Your task to perform on an android device: open sync settings in chrome Image 0: 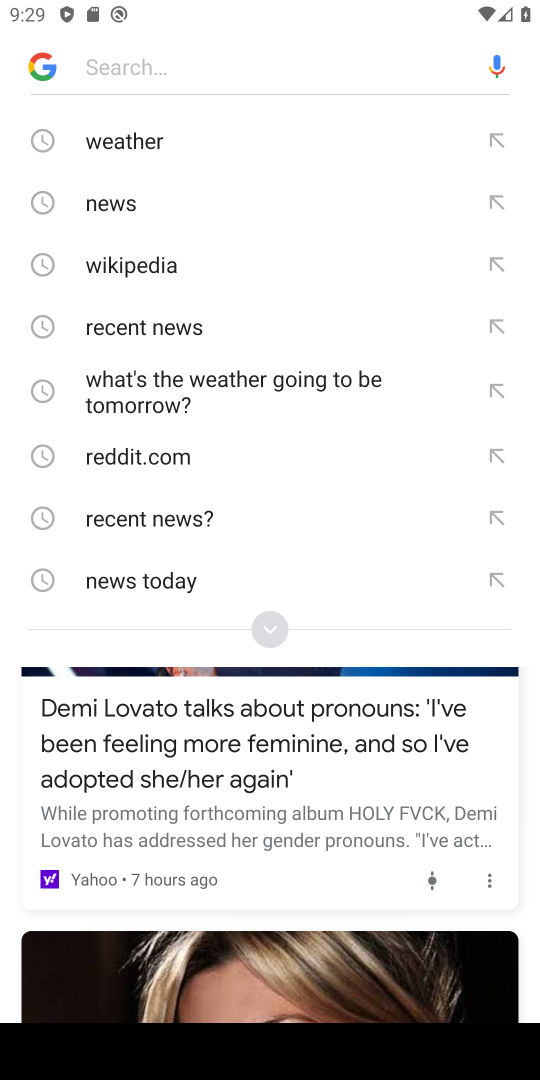
Step 0: press home button
Your task to perform on an android device: open sync settings in chrome Image 1: 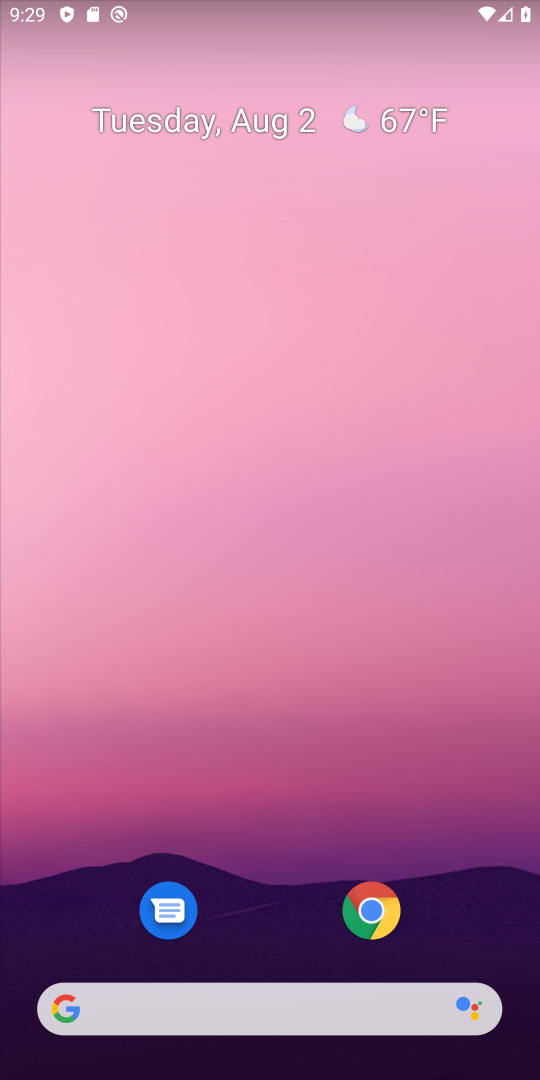
Step 1: click (379, 902)
Your task to perform on an android device: open sync settings in chrome Image 2: 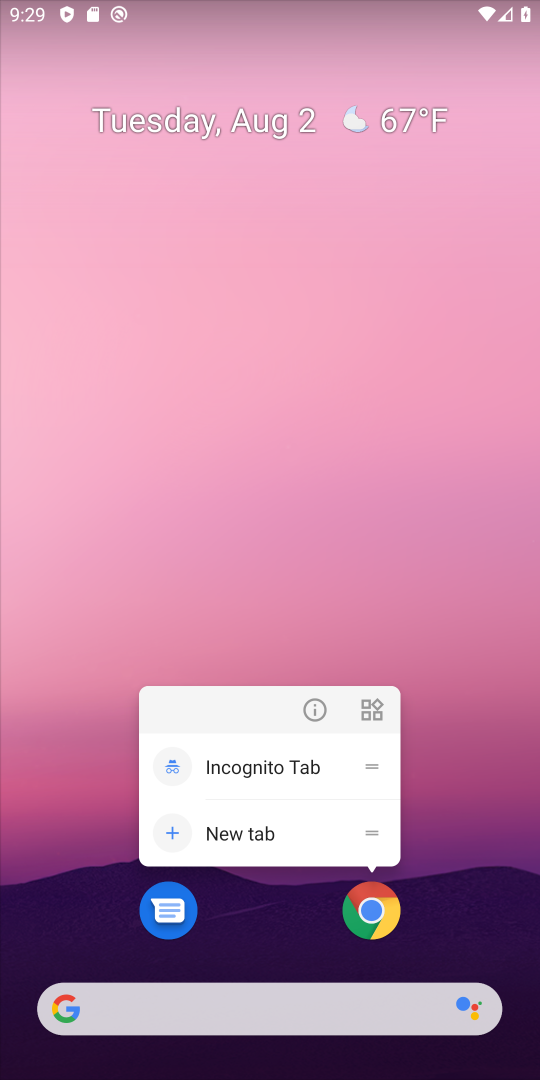
Step 2: click (379, 902)
Your task to perform on an android device: open sync settings in chrome Image 3: 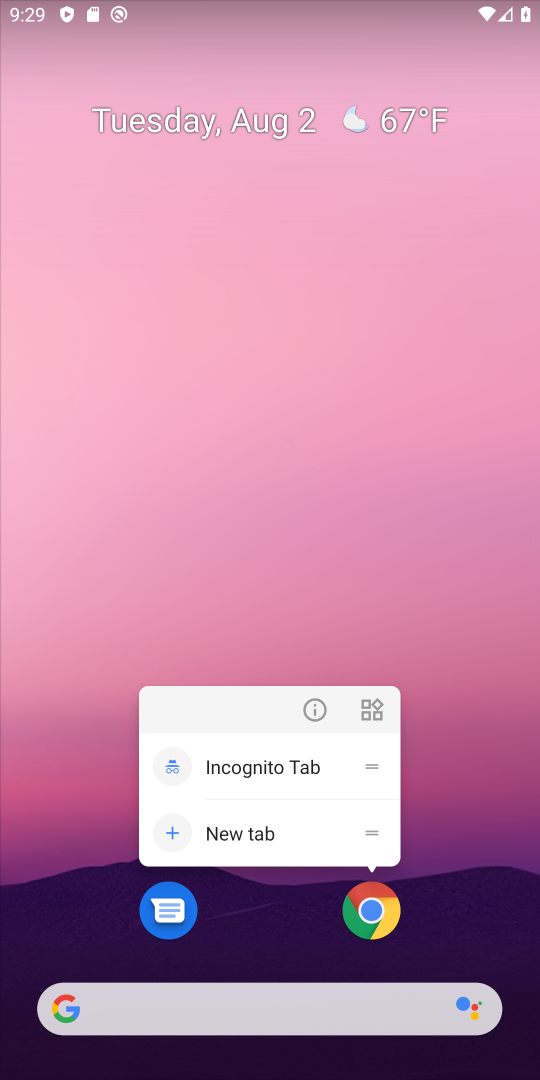
Step 3: drag from (296, 941) to (300, 463)
Your task to perform on an android device: open sync settings in chrome Image 4: 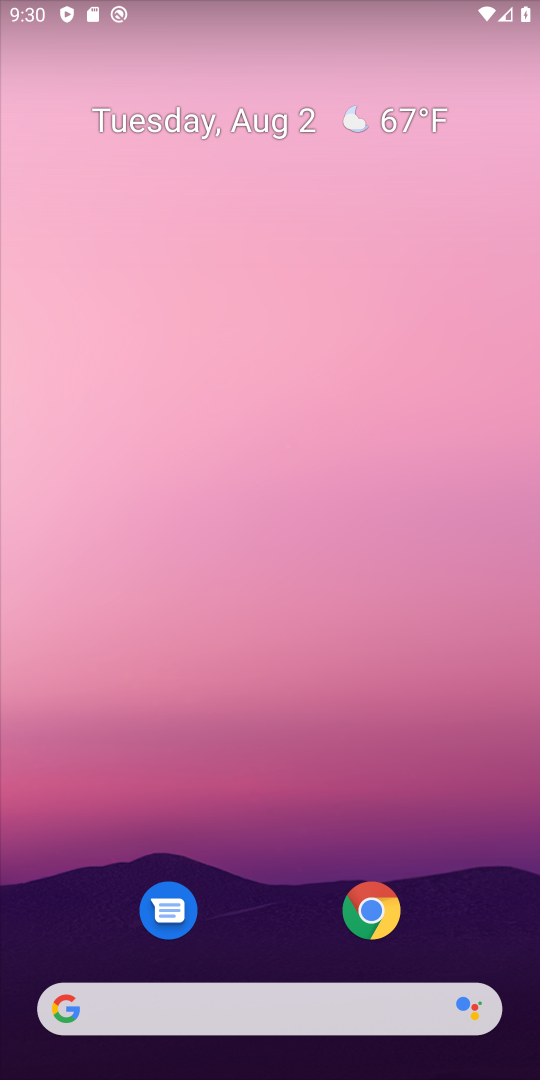
Step 4: drag from (237, 1052) to (307, 471)
Your task to perform on an android device: open sync settings in chrome Image 5: 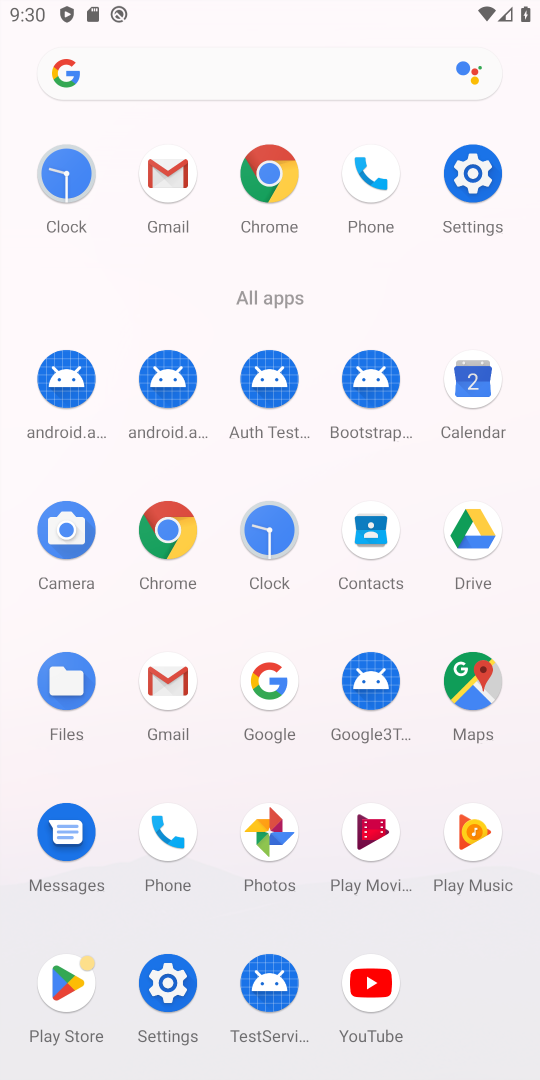
Step 5: click (261, 180)
Your task to perform on an android device: open sync settings in chrome Image 6: 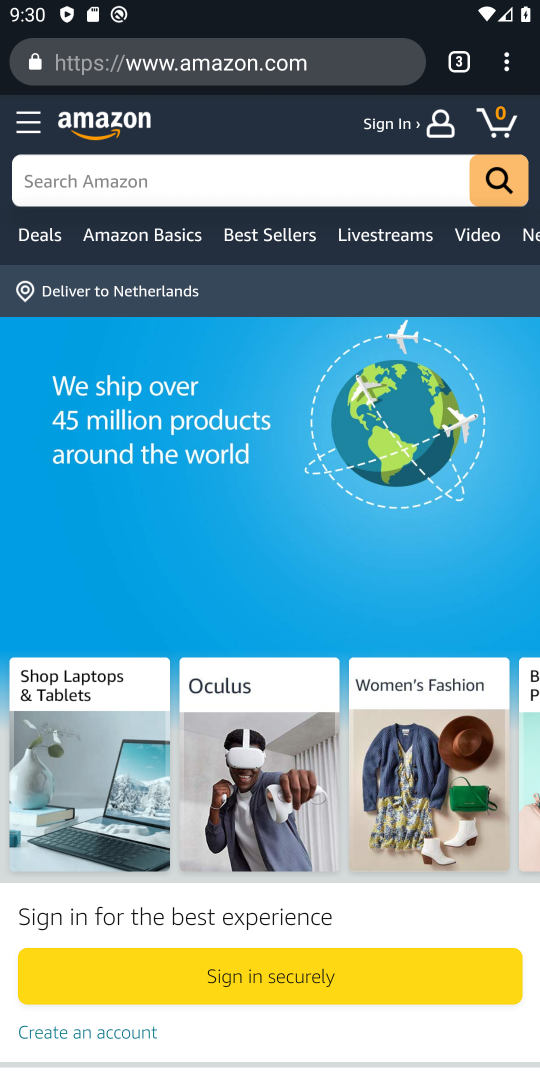
Step 6: click (517, 70)
Your task to perform on an android device: open sync settings in chrome Image 7: 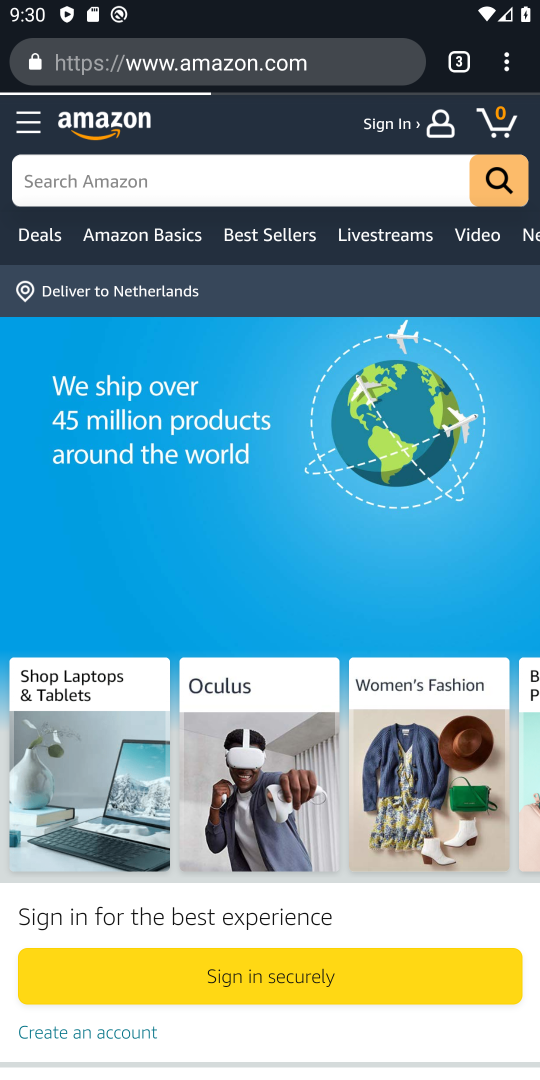
Step 7: click (517, 70)
Your task to perform on an android device: open sync settings in chrome Image 8: 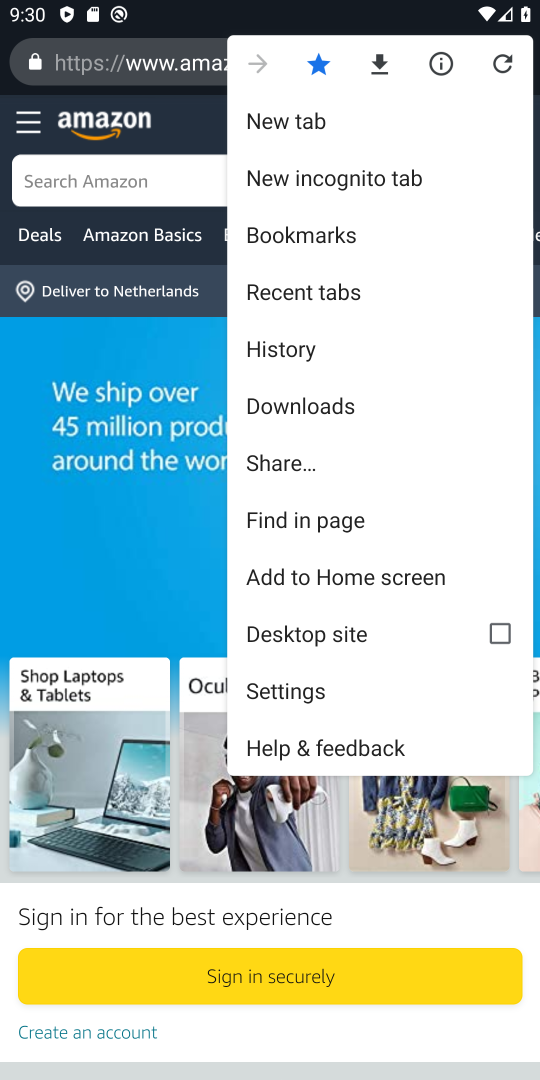
Step 8: click (268, 679)
Your task to perform on an android device: open sync settings in chrome Image 9: 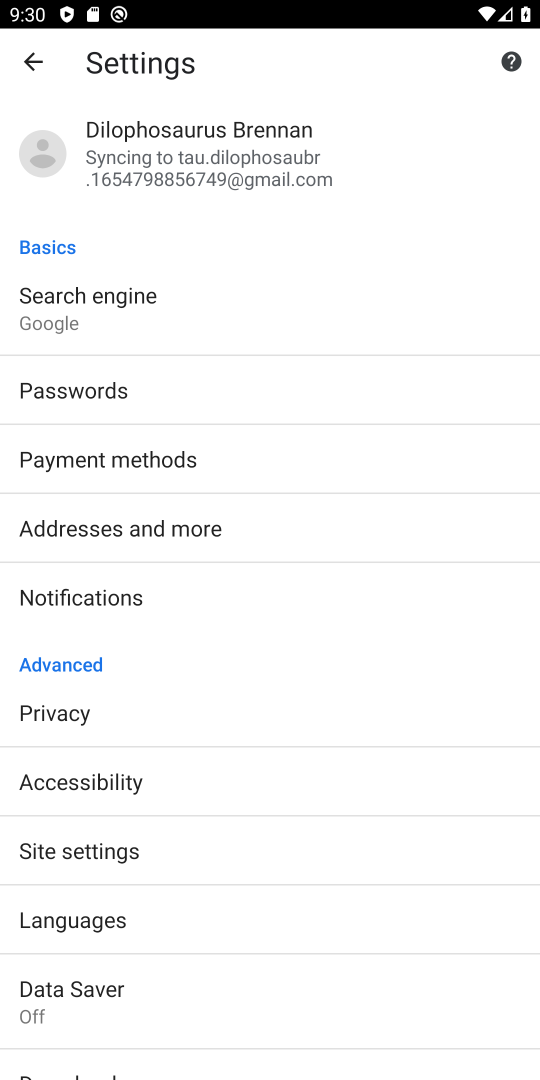
Step 9: click (148, 162)
Your task to perform on an android device: open sync settings in chrome Image 10: 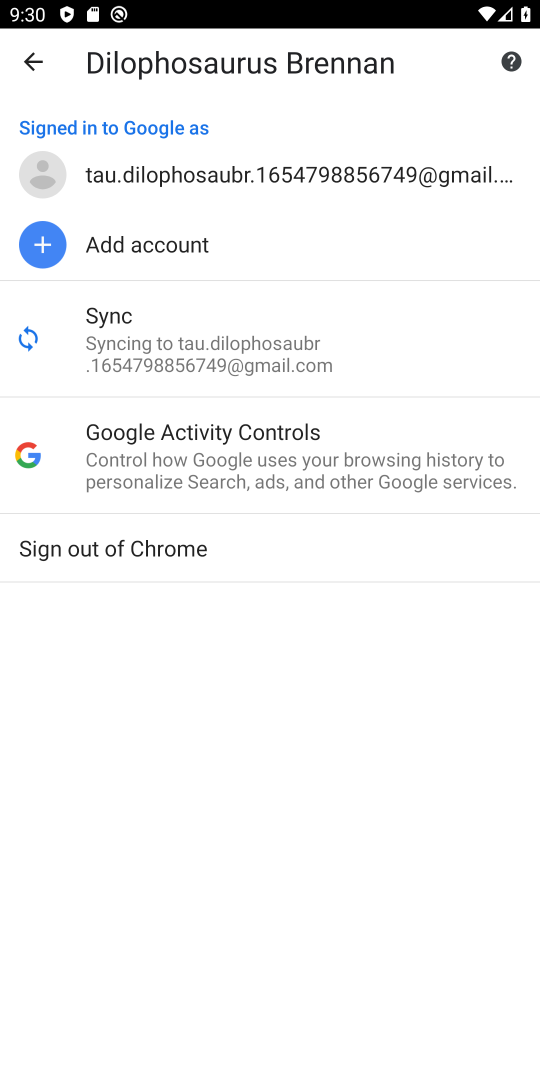
Step 10: click (84, 340)
Your task to perform on an android device: open sync settings in chrome Image 11: 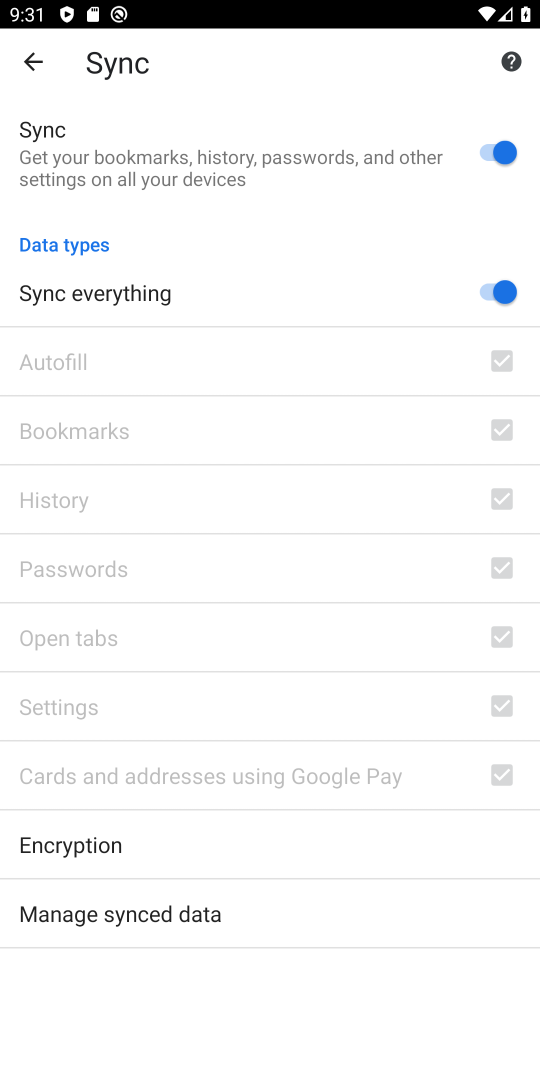
Step 11: task complete